Your task to perform on an android device: Open Chrome and go to settings Image 0: 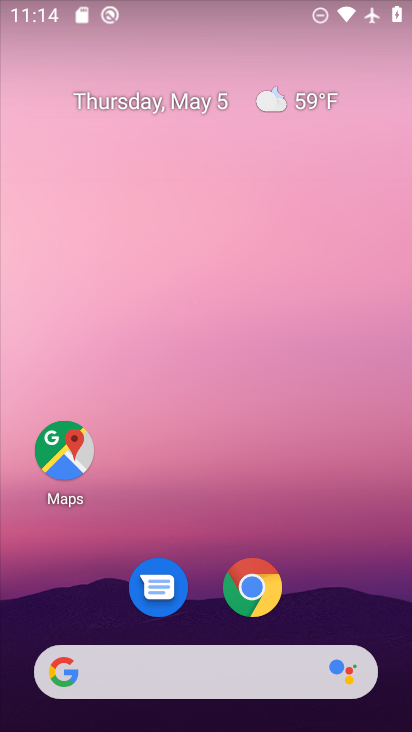
Step 0: drag from (310, 547) to (190, 9)
Your task to perform on an android device: Open Chrome and go to settings Image 1: 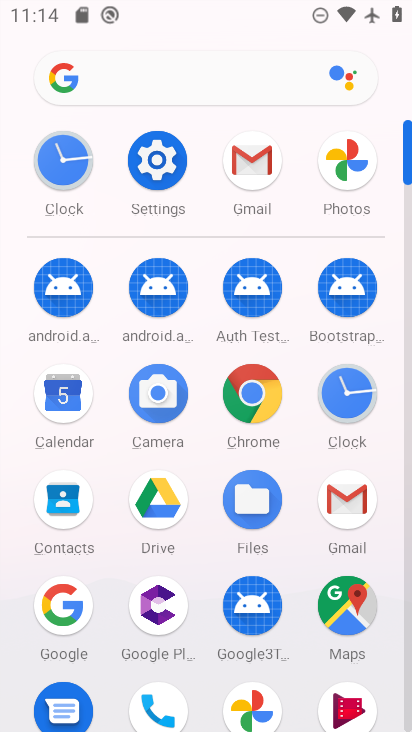
Step 1: drag from (22, 596) to (33, 241)
Your task to perform on an android device: Open Chrome and go to settings Image 2: 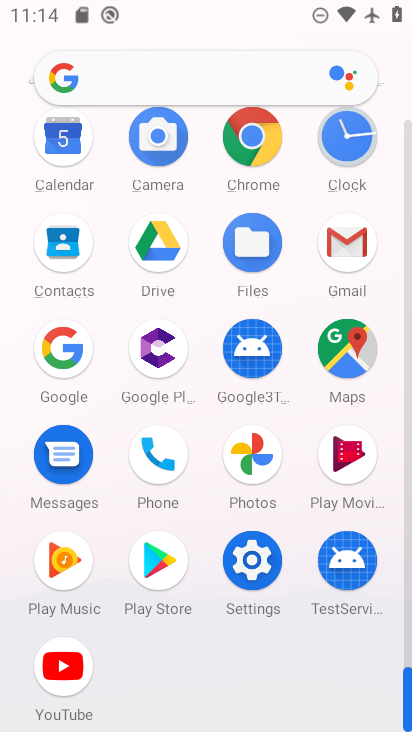
Step 2: click (249, 131)
Your task to perform on an android device: Open Chrome and go to settings Image 3: 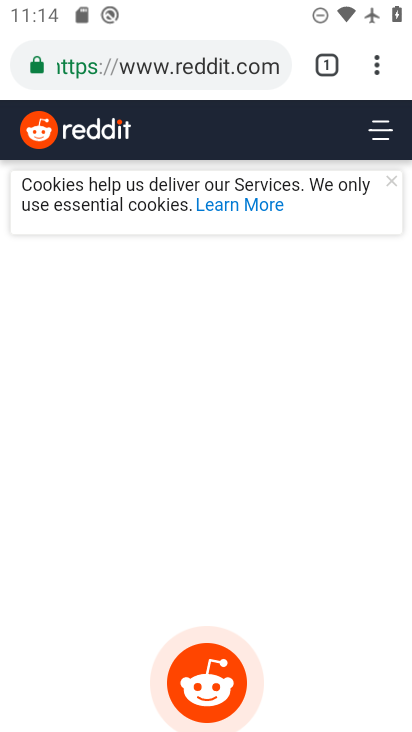
Step 3: task complete